Your task to perform on an android device: toggle priority inbox in the gmail app Image 0: 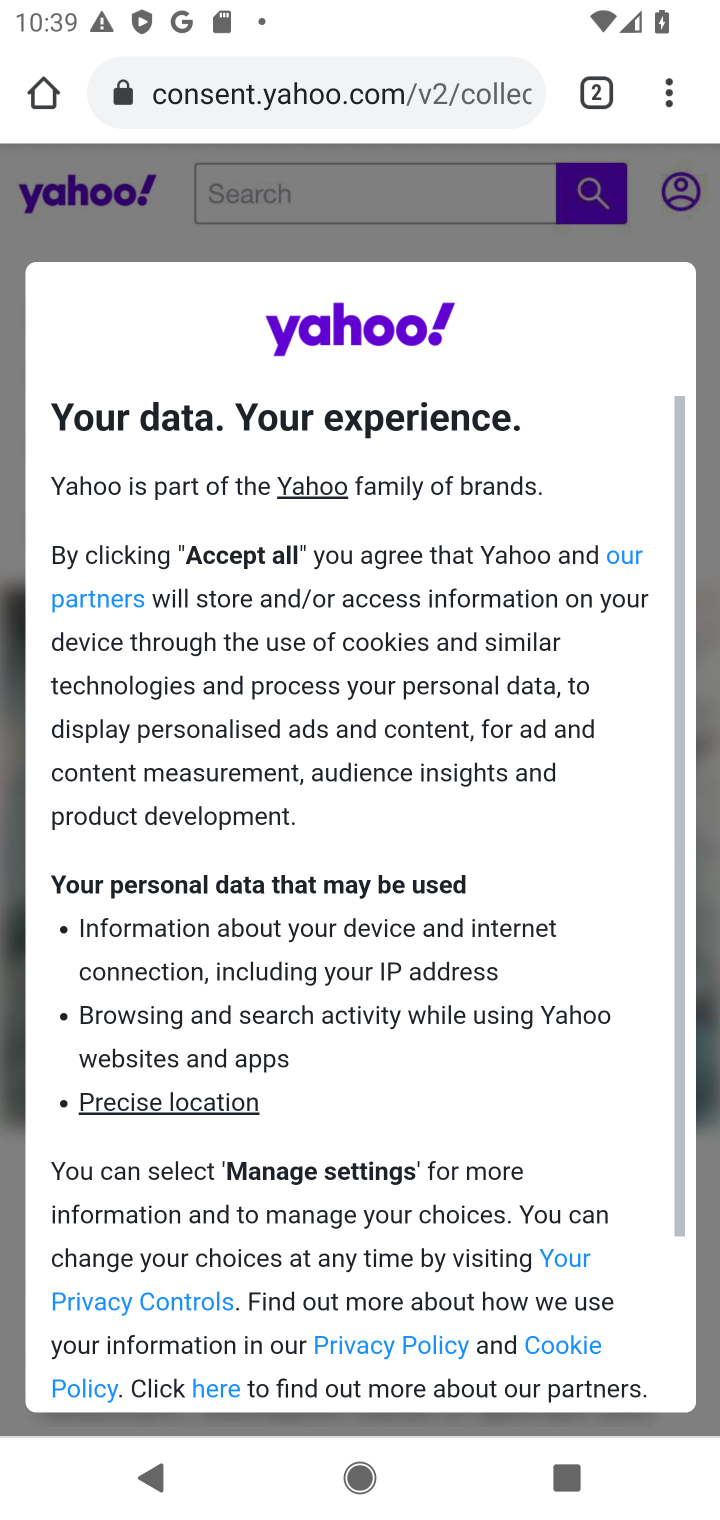
Step 0: press home button
Your task to perform on an android device: toggle priority inbox in the gmail app Image 1: 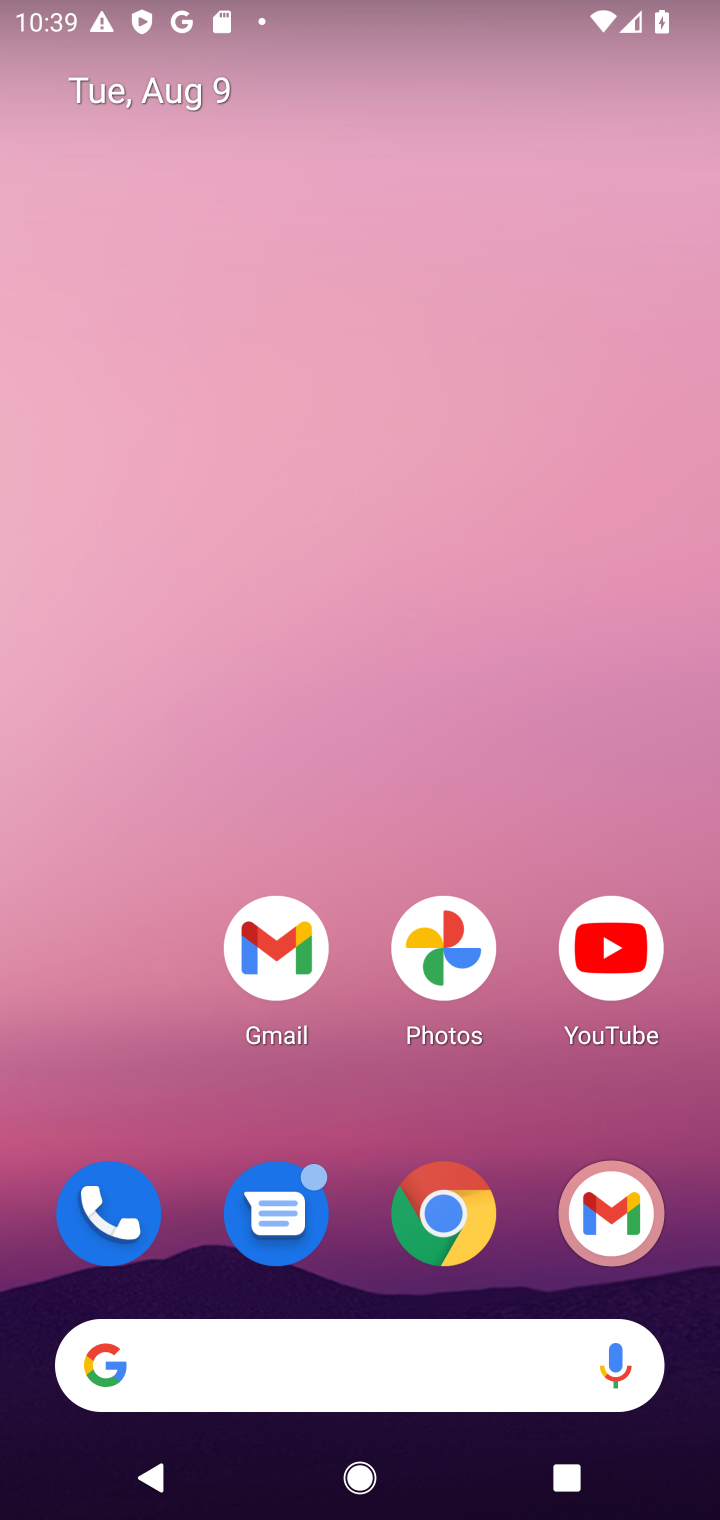
Step 1: drag from (357, 1274) to (358, 2)
Your task to perform on an android device: toggle priority inbox in the gmail app Image 2: 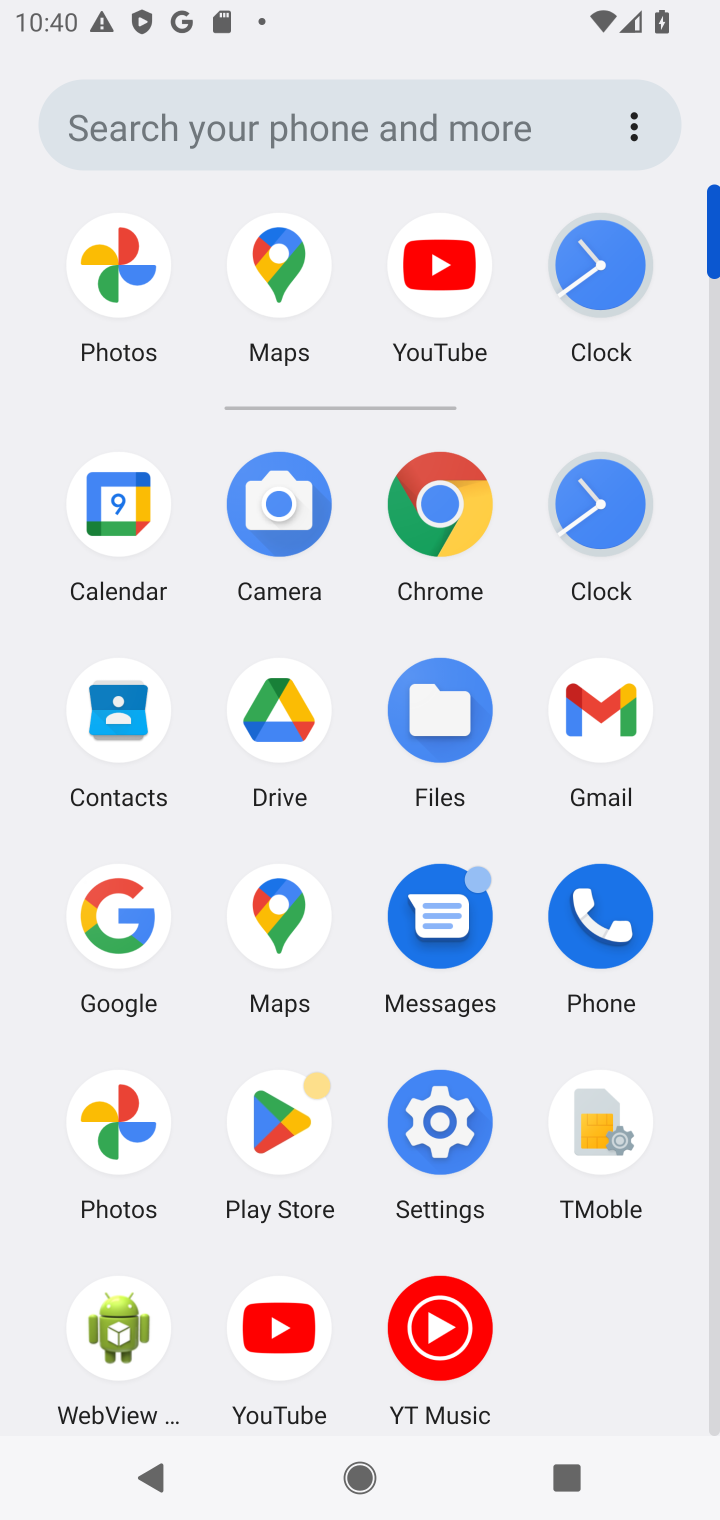
Step 2: click (599, 690)
Your task to perform on an android device: toggle priority inbox in the gmail app Image 3: 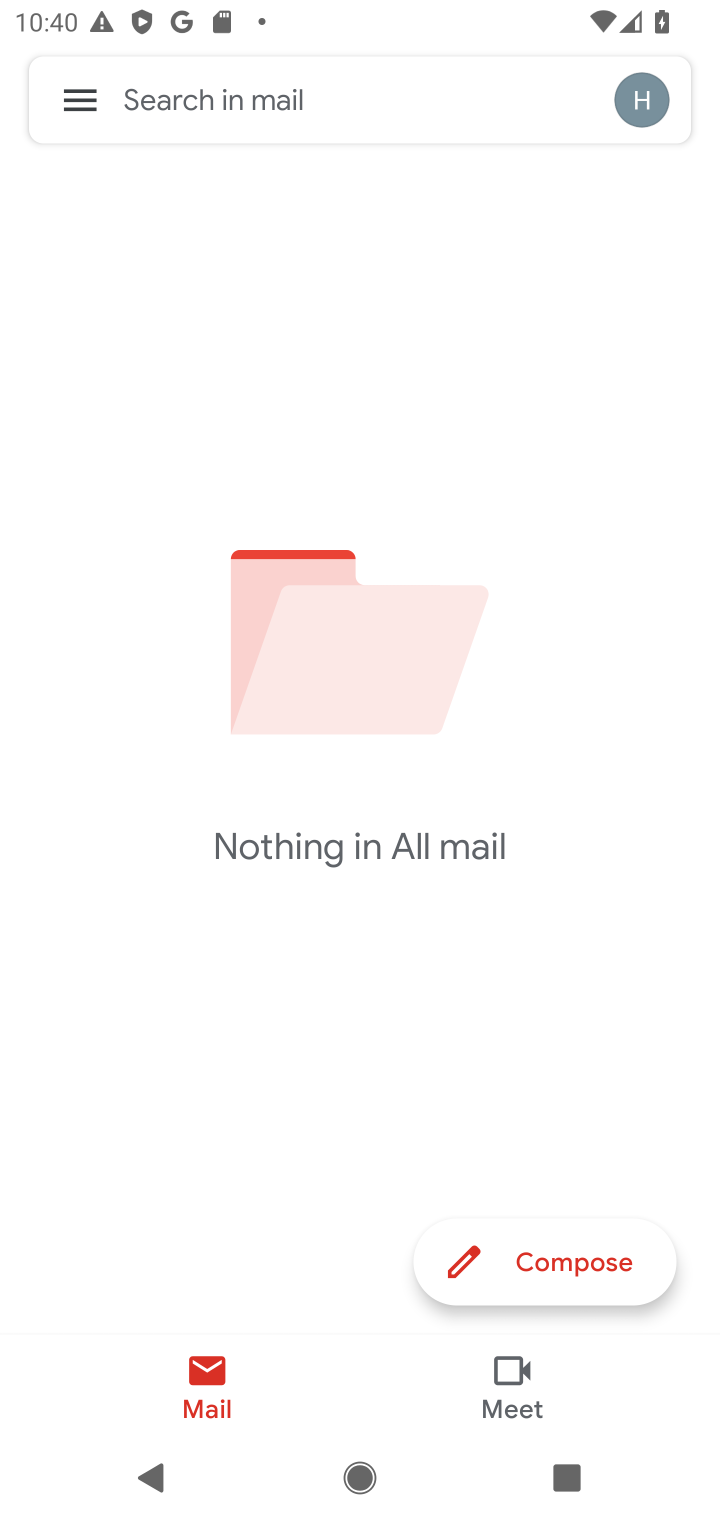
Step 3: click (95, 76)
Your task to perform on an android device: toggle priority inbox in the gmail app Image 4: 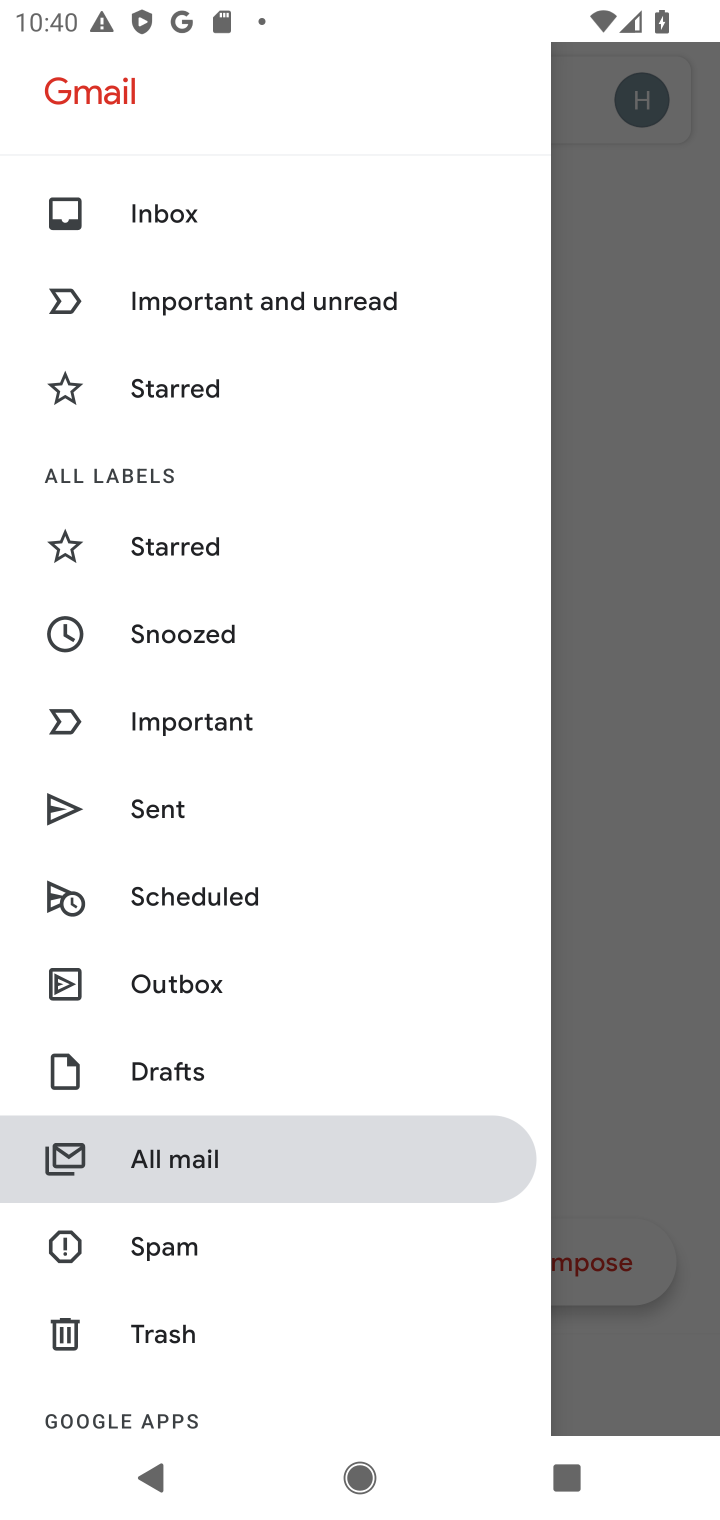
Step 4: drag from (309, 1238) to (364, 327)
Your task to perform on an android device: toggle priority inbox in the gmail app Image 5: 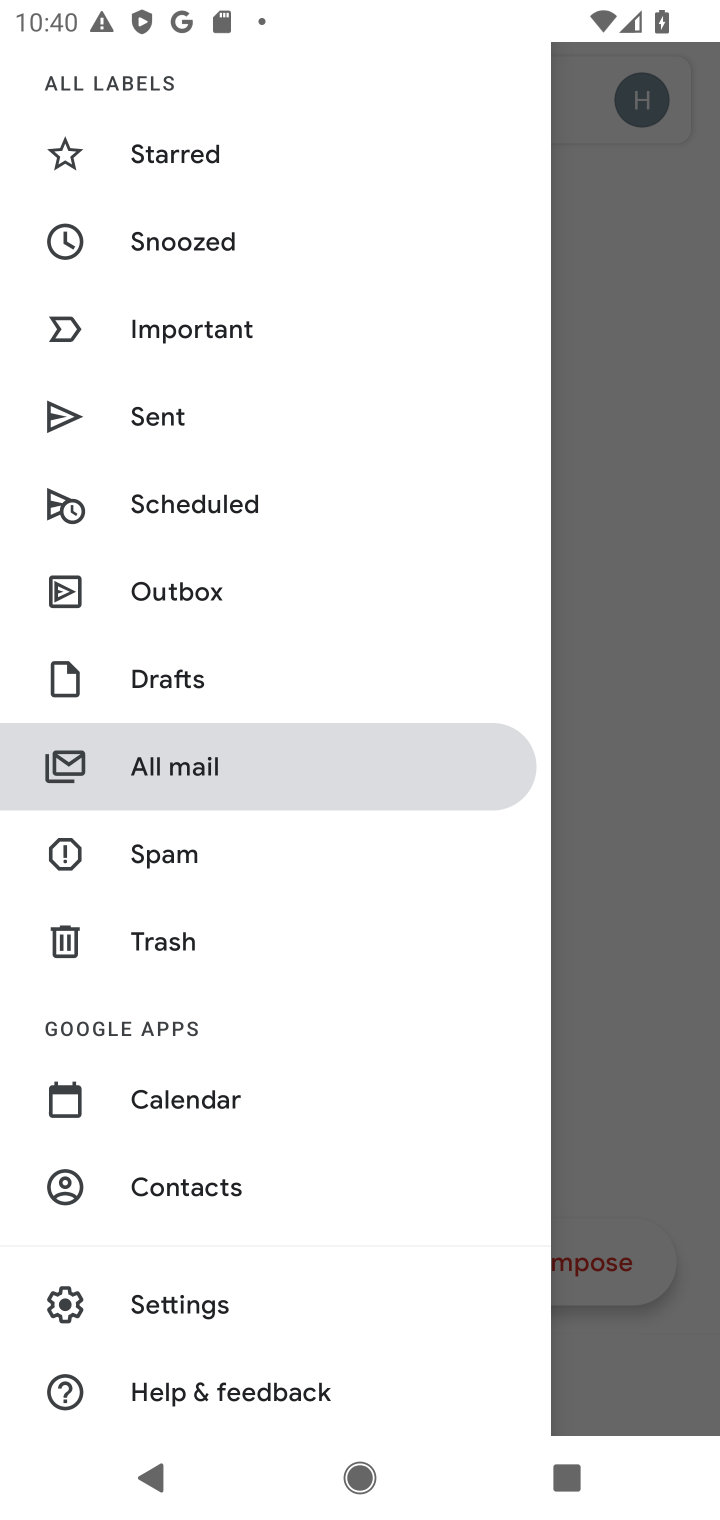
Step 5: click (191, 1291)
Your task to perform on an android device: toggle priority inbox in the gmail app Image 6: 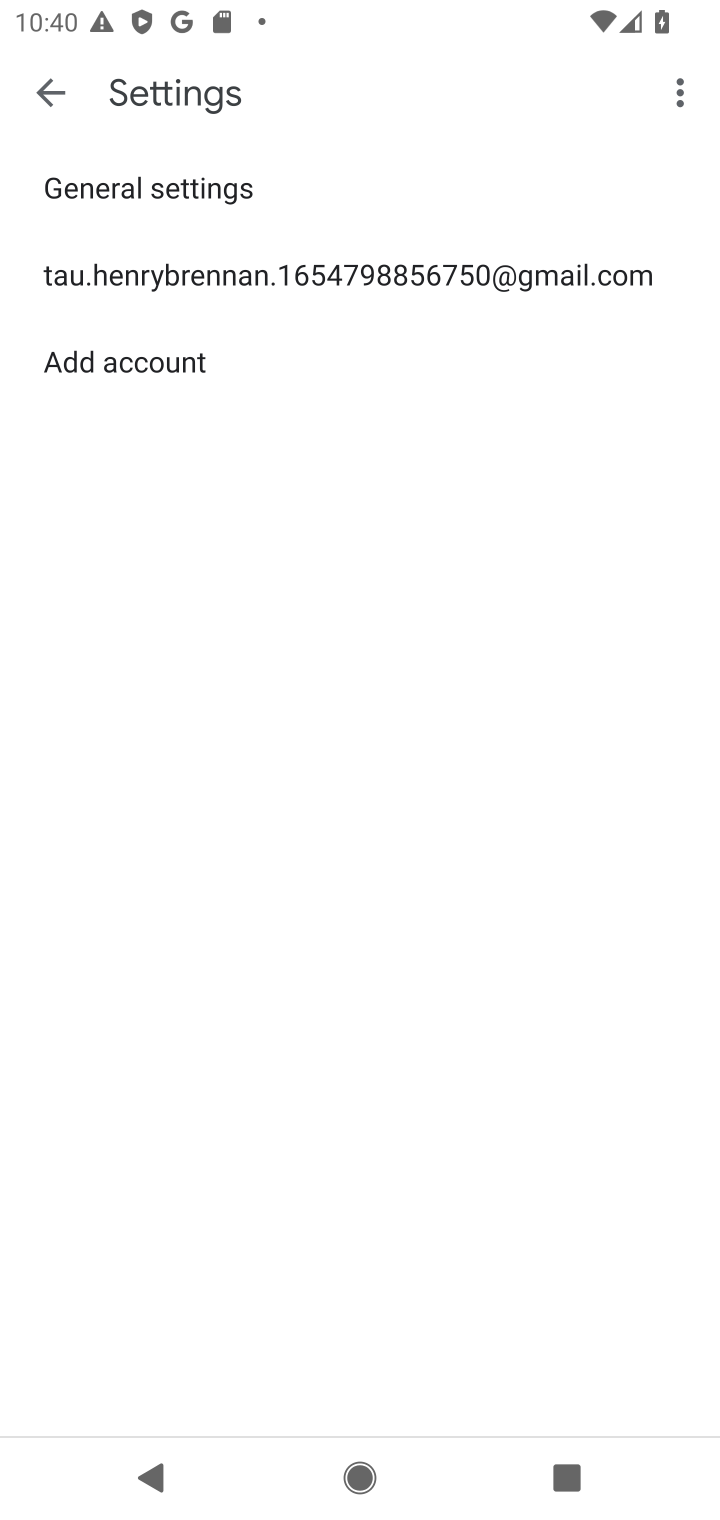
Step 6: click (70, 239)
Your task to perform on an android device: toggle priority inbox in the gmail app Image 7: 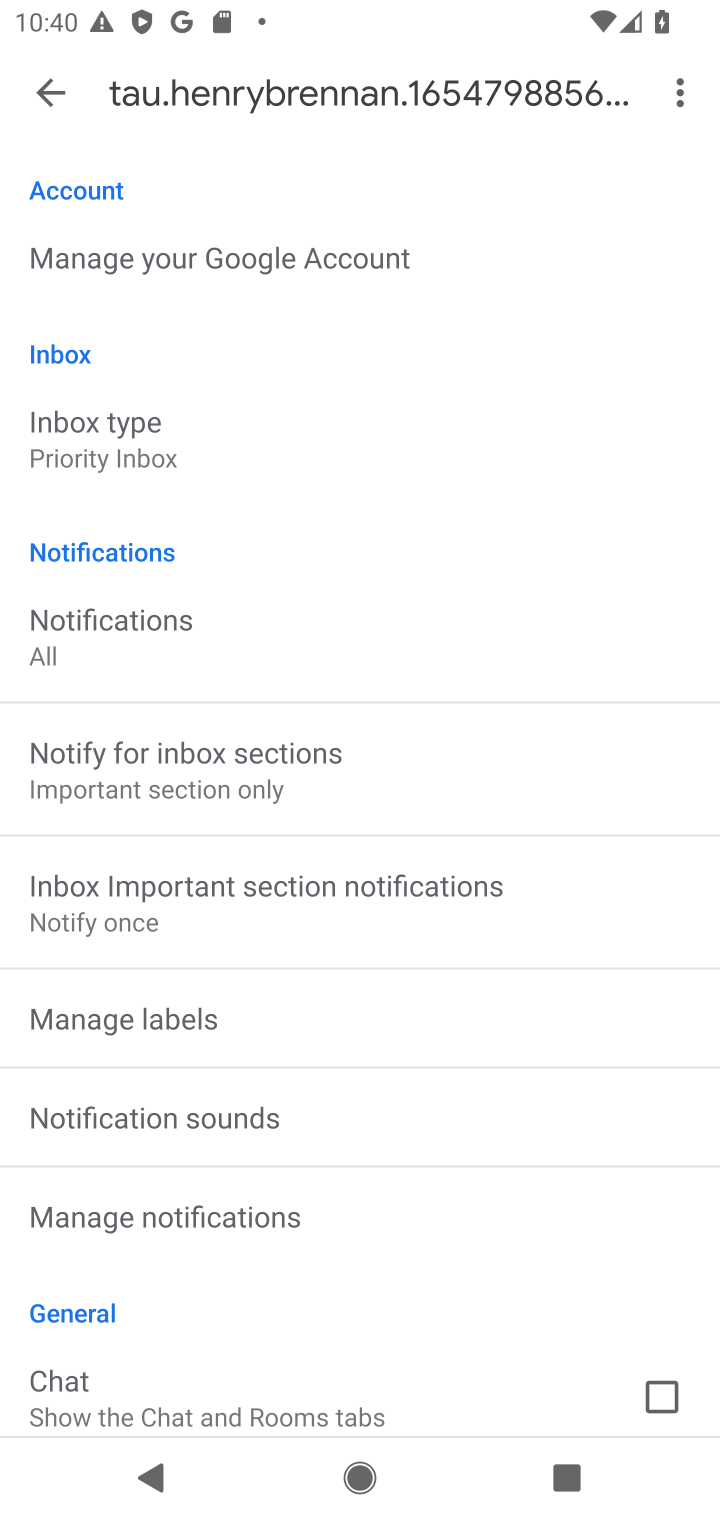
Step 7: click (121, 474)
Your task to perform on an android device: toggle priority inbox in the gmail app Image 8: 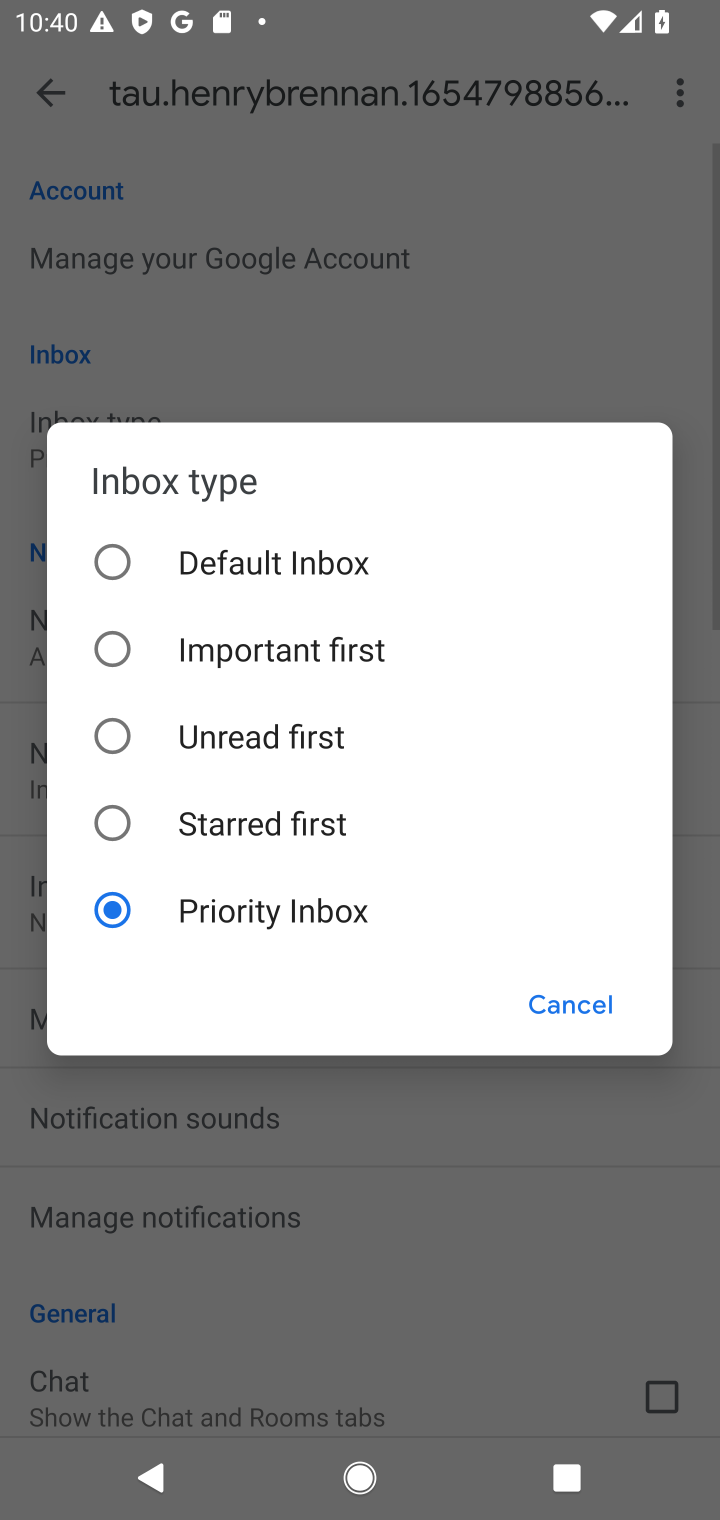
Step 8: click (243, 842)
Your task to perform on an android device: toggle priority inbox in the gmail app Image 9: 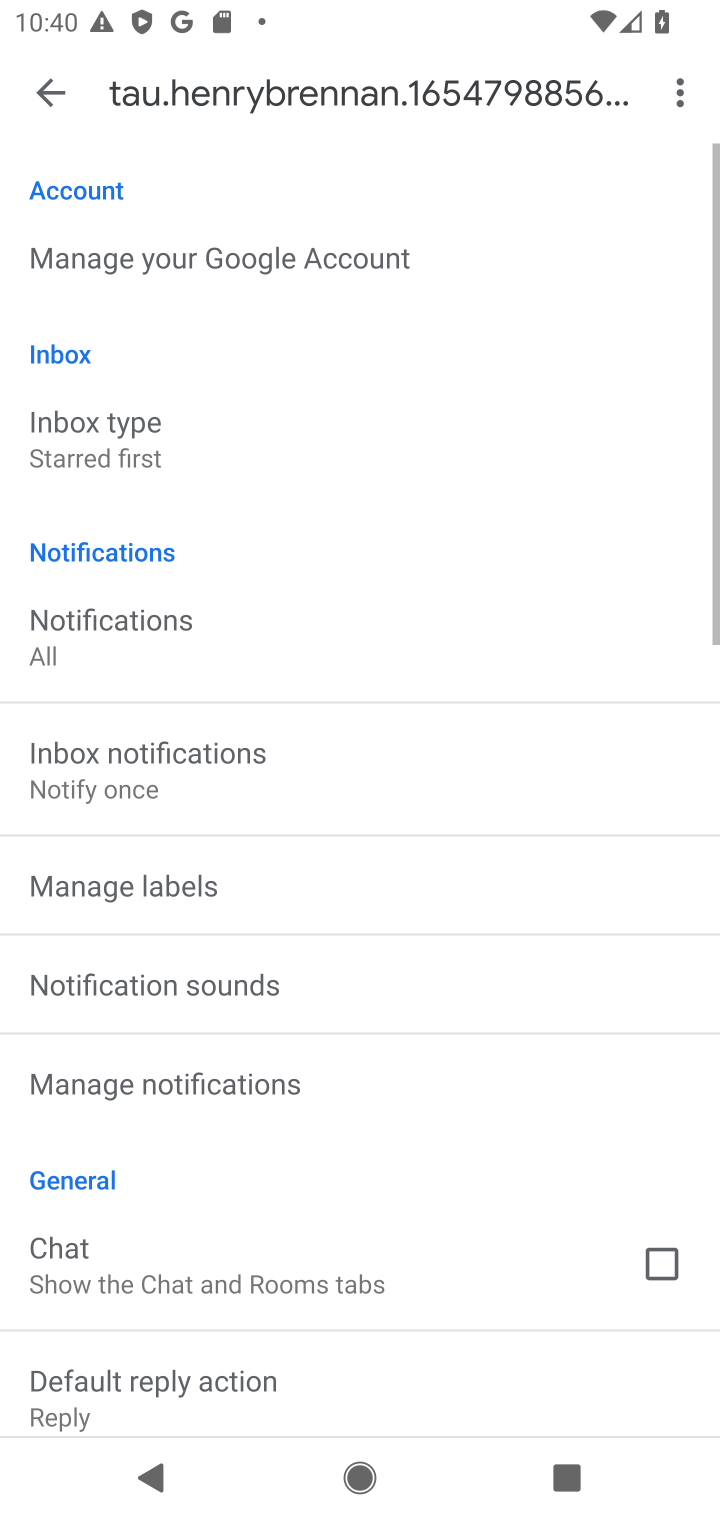
Step 9: task complete